Your task to perform on an android device: stop showing notifications on the lock screen Image 0: 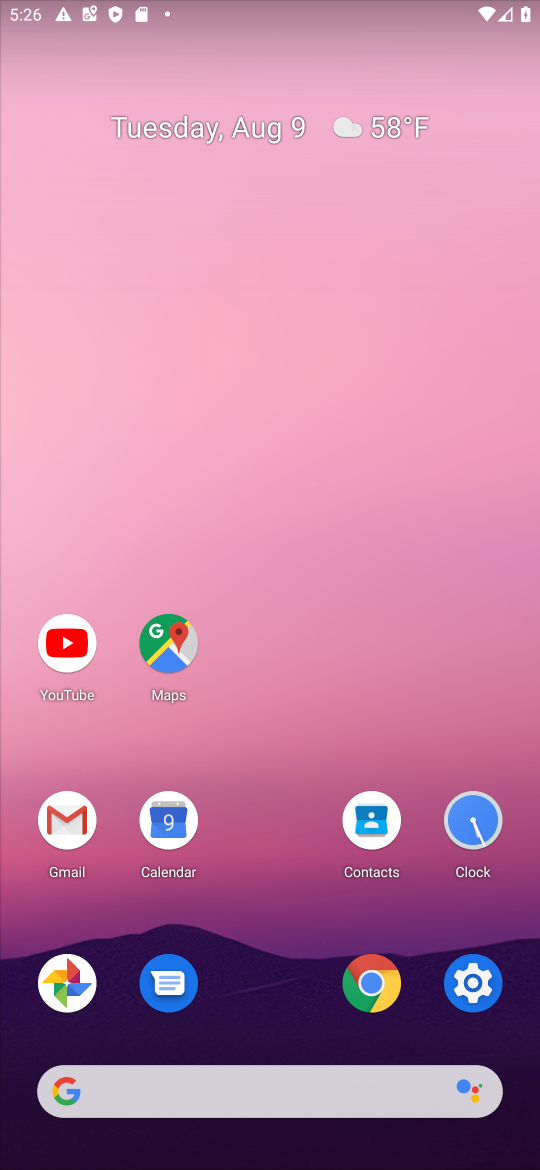
Step 0: click (469, 977)
Your task to perform on an android device: stop showing notifications on the lock screen Image 1: 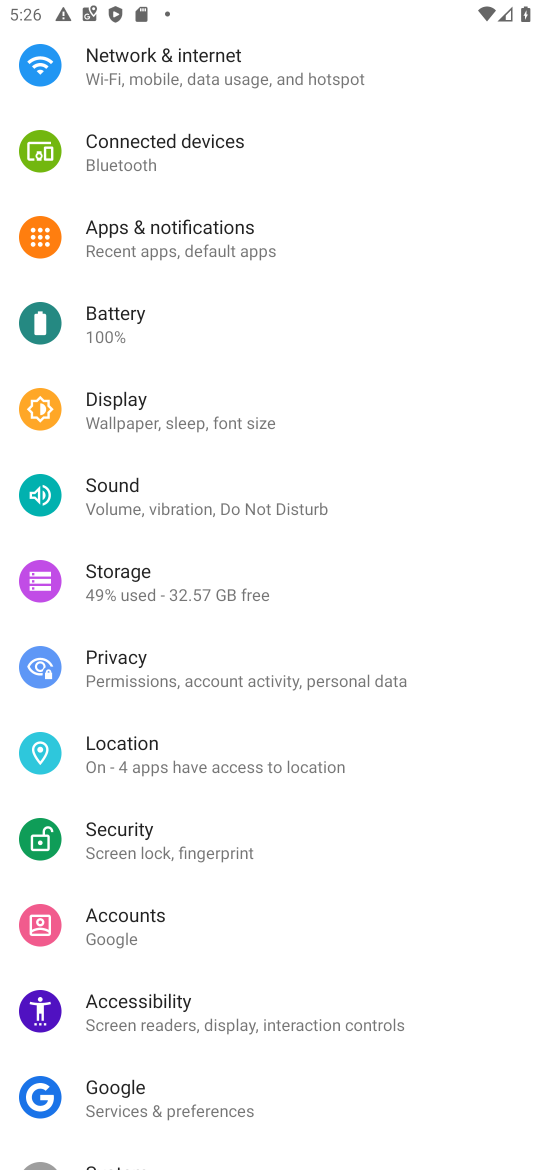
Step 1: click (157, 223)
Your task to perform on an android device: stop showing notifications on the lock screen Image 2: 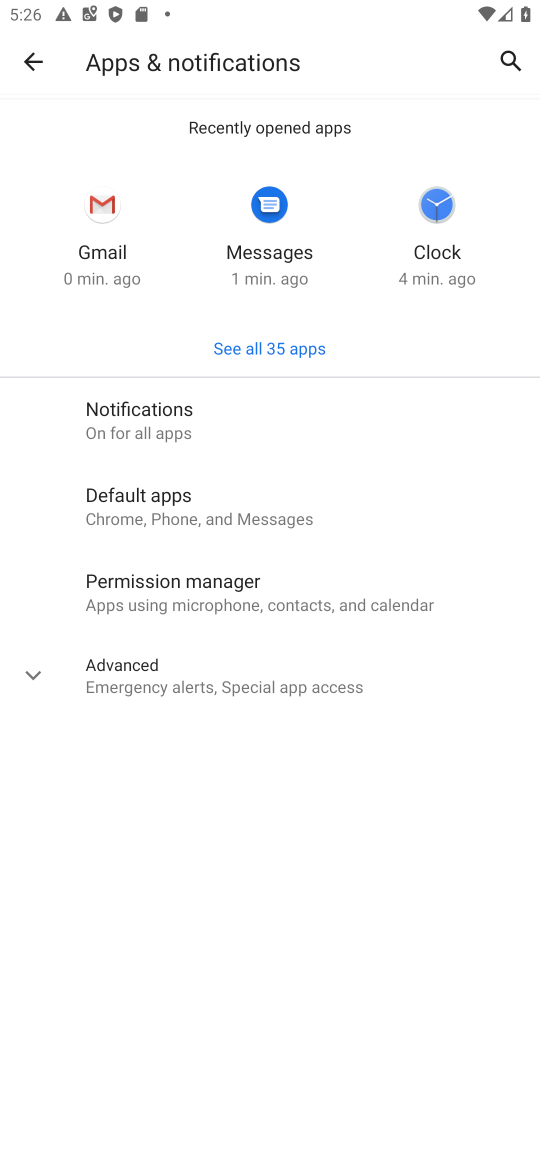
Step 2: click (162, 403)
Your task to perform on an android device: stop showing notifications on the lock screen Image 3: 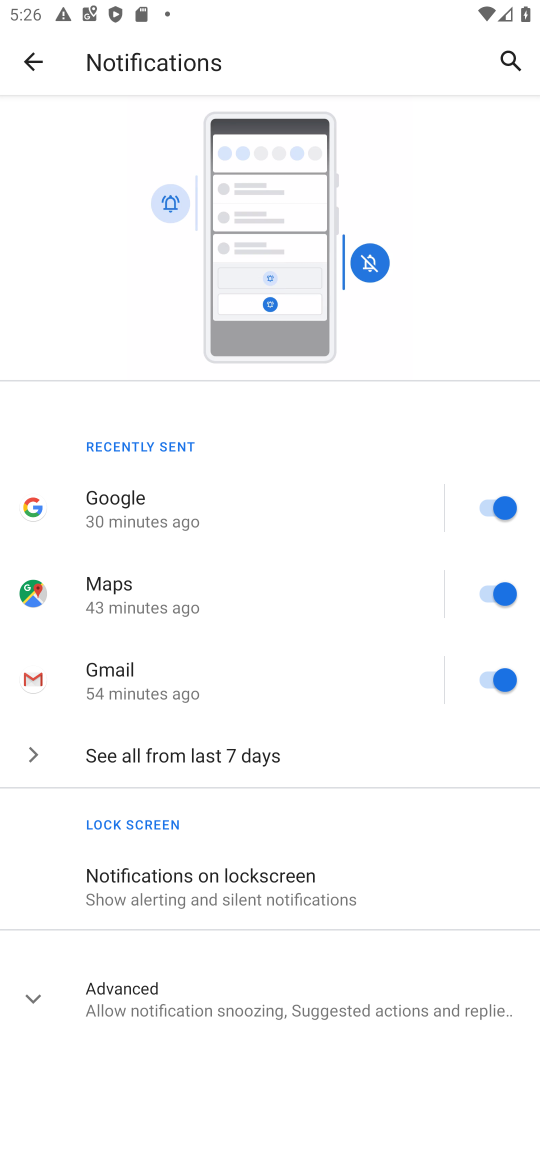
Step 3: click (250, 868)
Your task to perform on an android device: stop showing notifications on the lock screen Image 4: 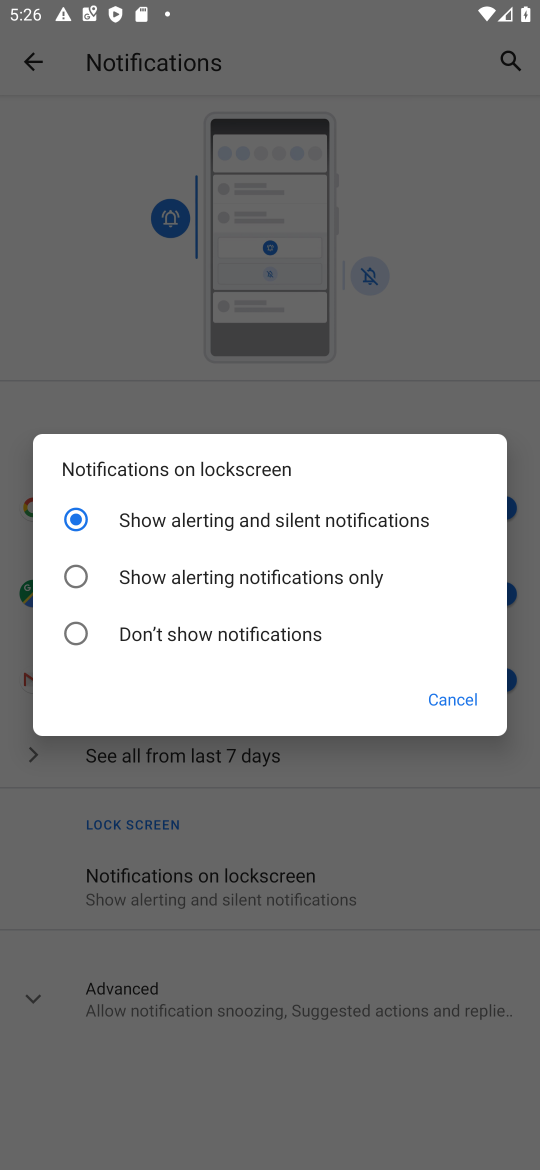
Step 4: click (79, 625)
Your task to perform on an android device: stop showing notifications on the lock screen Image 5: 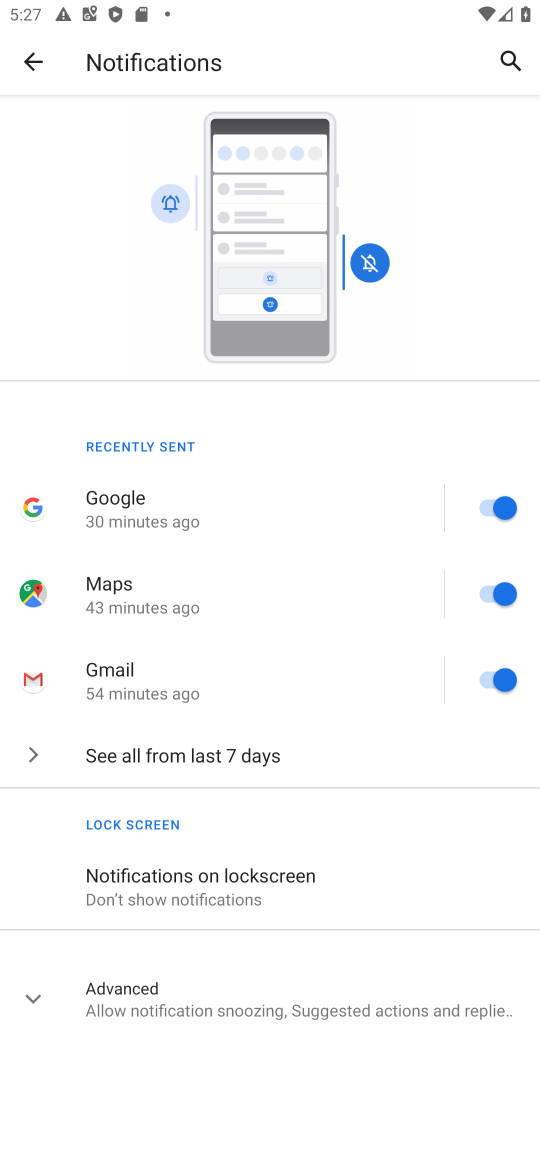
Step 5: task complete